Your task to perform on an android device: Open the stopwatch Image 0: 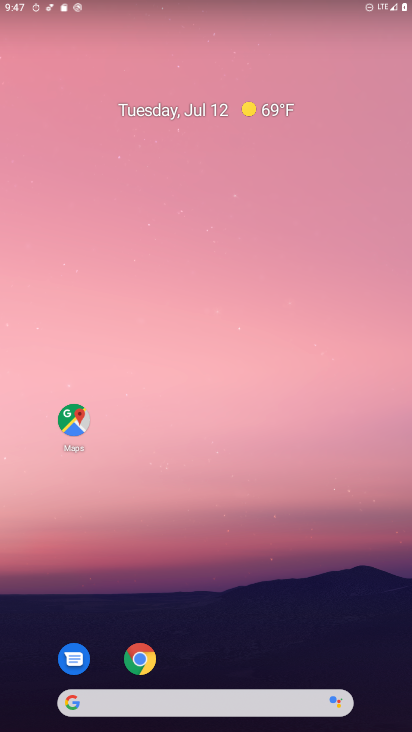
Step 0: drag from (237, 722) to (237, 187)
Your task to perform on an android device: Open the stopwatch Image 1: 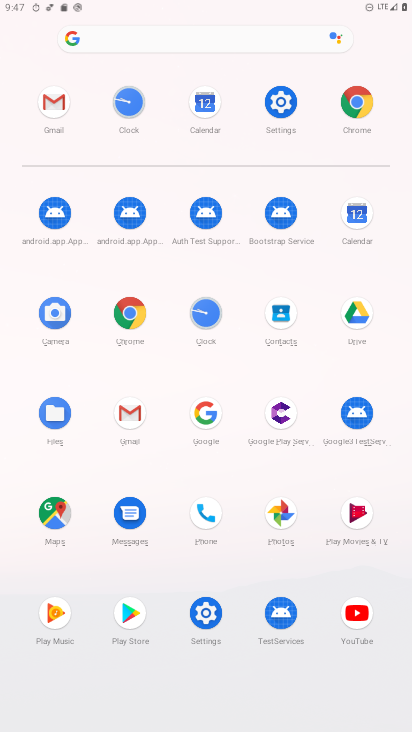
Step 1: click (206, 320)
Your task to perform on an android device: Open the stopwatch Image 2: 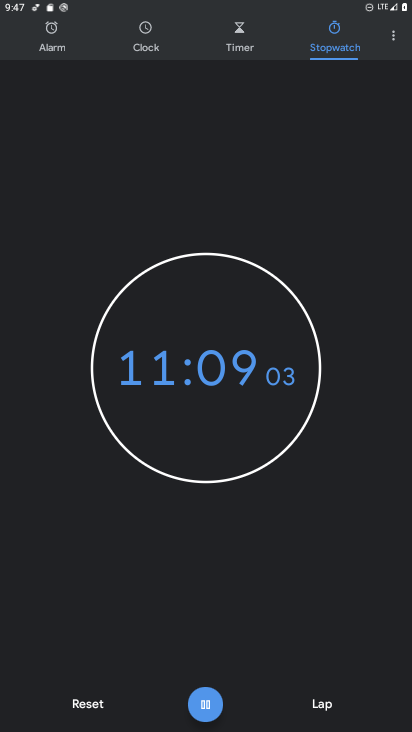
Step 2: task complete